Your task to perform on an android device: Open calendar and show me the second week of next month Image 0: 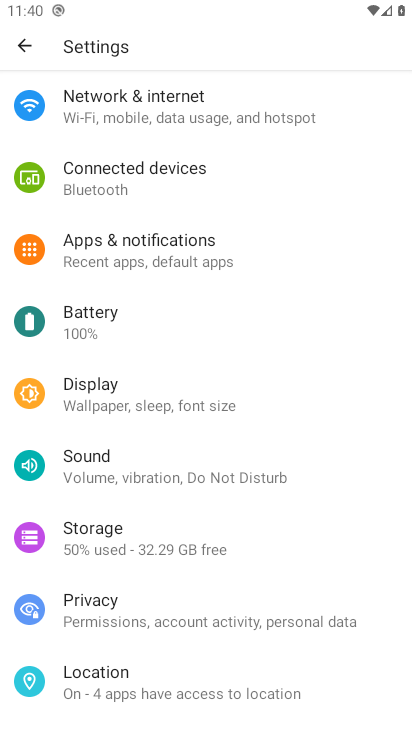
Step 0: press home button
Your task to perform on an android device: Open calendar and show me the second week of next month Image 1: 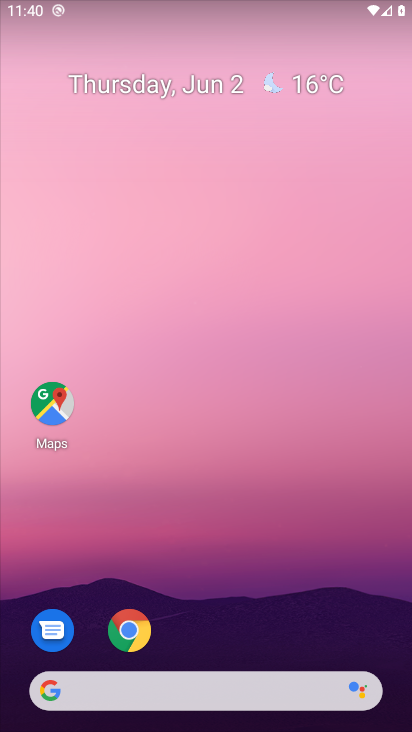
Step 1: drag from (262, 624) to (187, 2)
Your task to perform on an android device: Open calendar and show me the second week of next month Image 2: 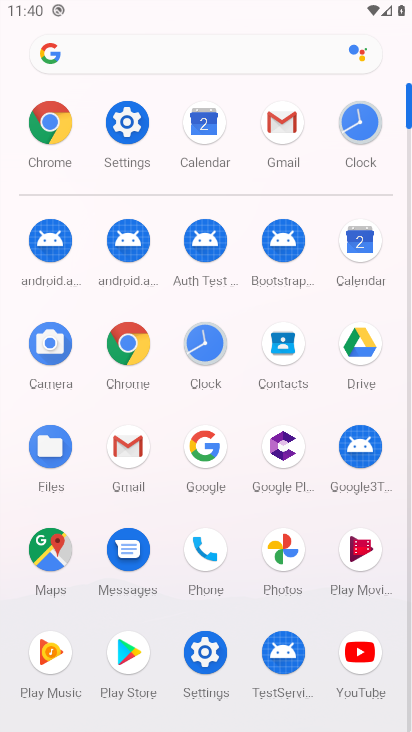
Step 2: click (360, 245)
Your task to perform on an android device: Open calendar and show me the second week of next month Image 3: 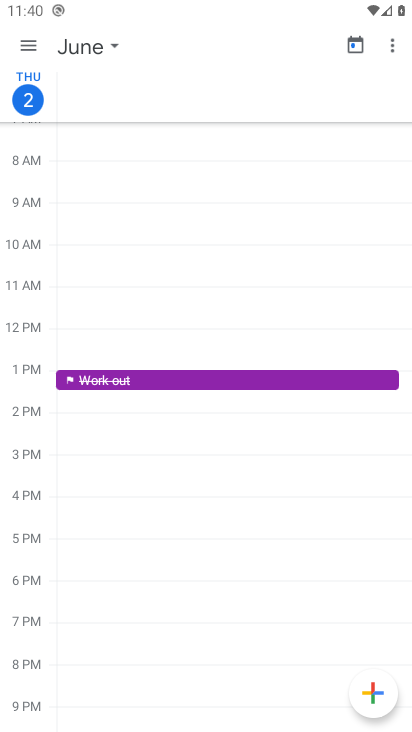
Step 3: click (40, 48)
Your task to perform on an android device: Open calendar and show me the second week of next month Image 4: 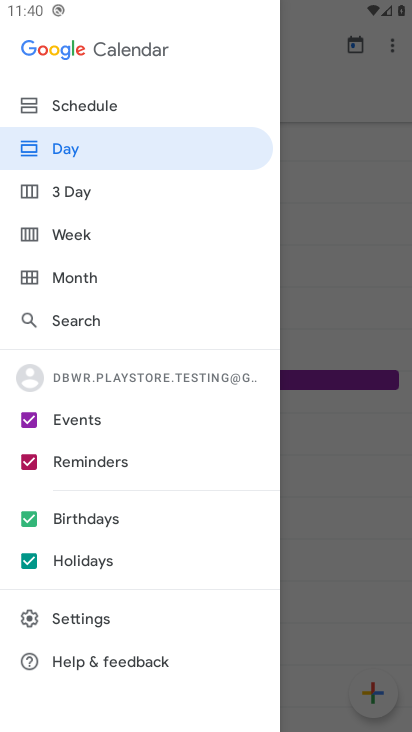
Step 4: click (76, 233)
Your task to perform on an android device: Open calendar and show me the second week of next month Image 5: 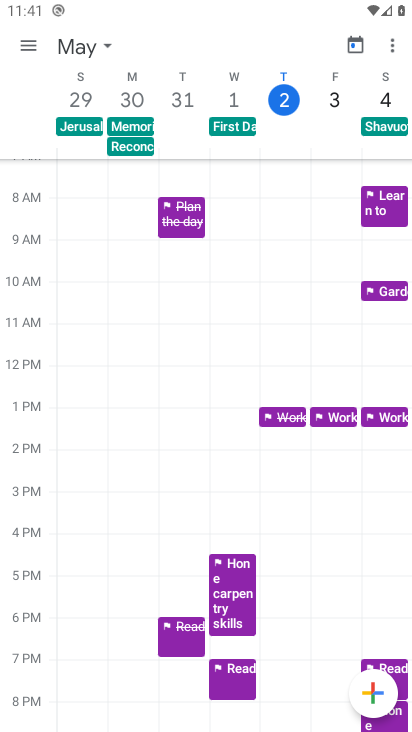
Step 5: task complete